Your task to perform on an android device: Search for seafood restaurants on Google Maps Image 0: 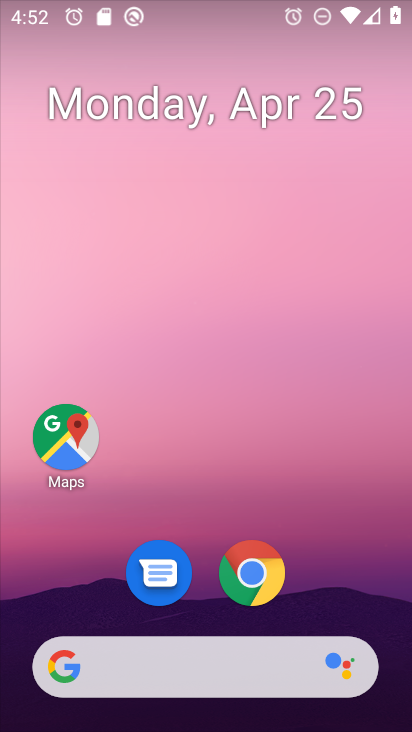
Step 0: click (62, 451)
Your task to perform on an android device: Search for seafood restaurants on Google Maps Image 1: 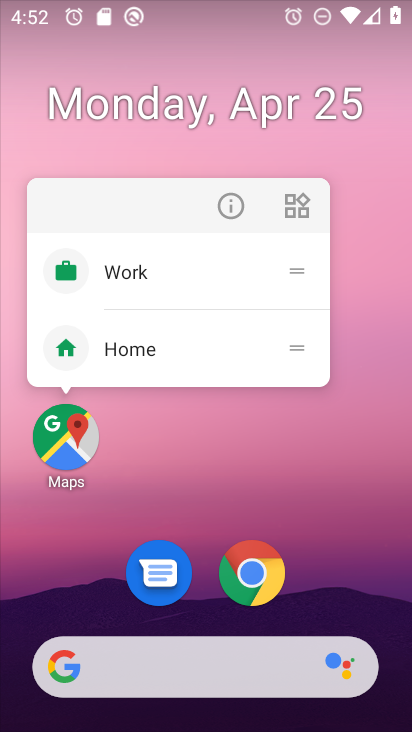
Step 1: click (62, 451)
Your task to perform on an android device: Search for seafood restaurants on Google Maps Image 2: 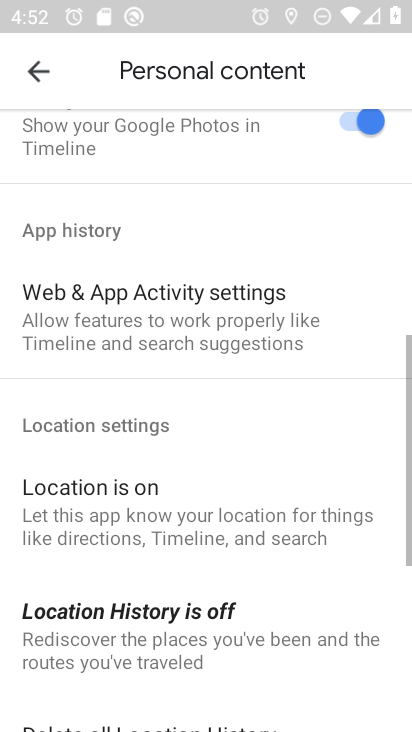
Step 2: click (95, 82)
Your task to perform on an android device: Search for seafood restaurants on Google Maps Image 3: 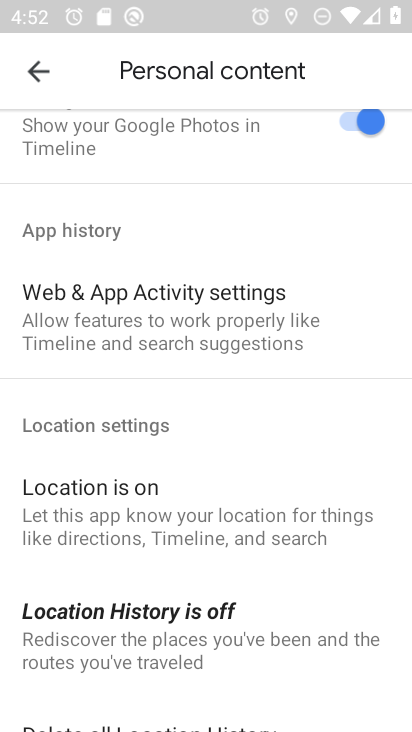
Step 3: click (60, 81)
Your task to perform on an android device: Search for seafood restaurants on Google Maps Image 4: 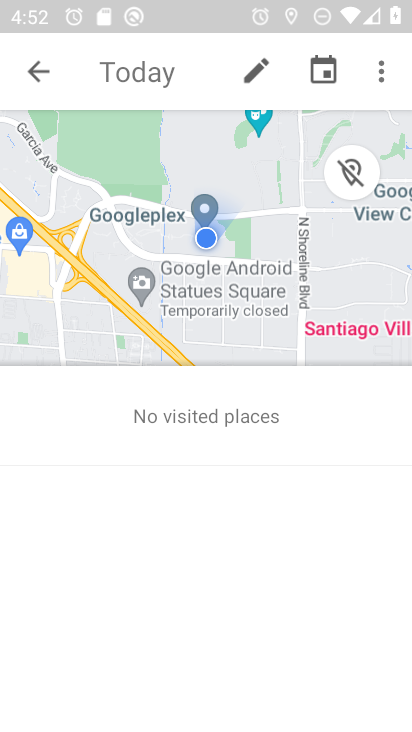
Step 4: click (50, 73)
Your task to perform on an android device: Search for seafood restaurants on Google Maps Image 5: 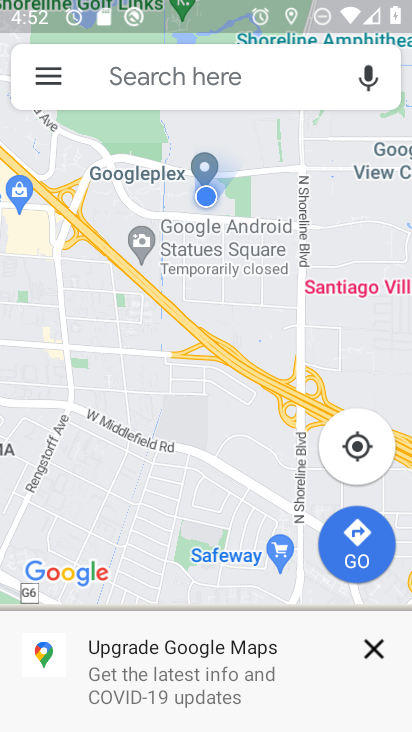
Step 5: click (151, 73)
Your task to perform on an android device: Search for seafood restaurants on Google Maps Image 6: 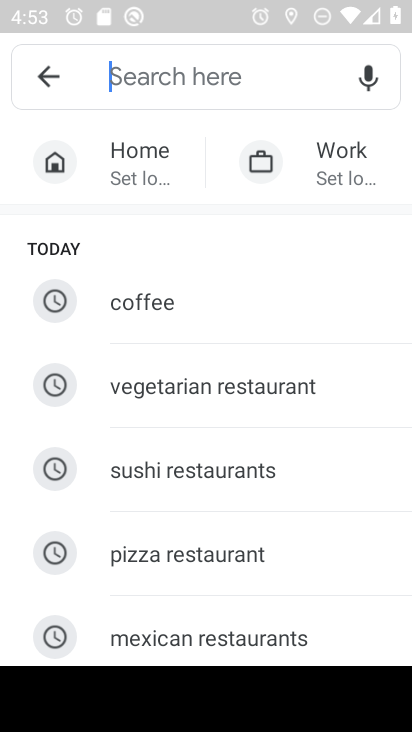
Step 6: type "seafood restaurant"
Your task to perform on an android device: Search for seafood restaurants on Google Maps Image 7: 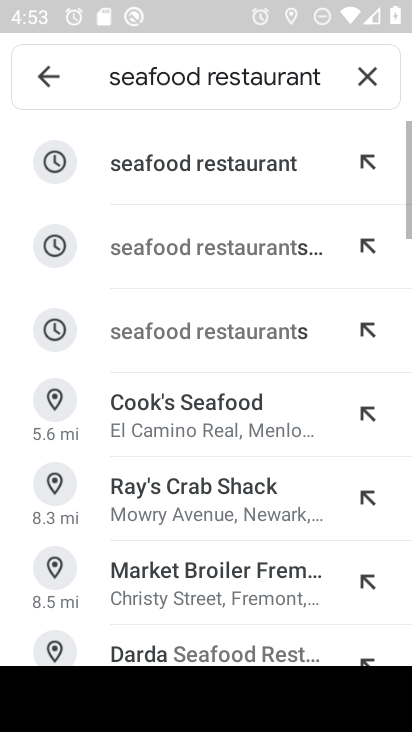
Step 7: click (184, 179)
Your task to perform on an android device: Search for seafood restaurants on Google Maps Image 8: 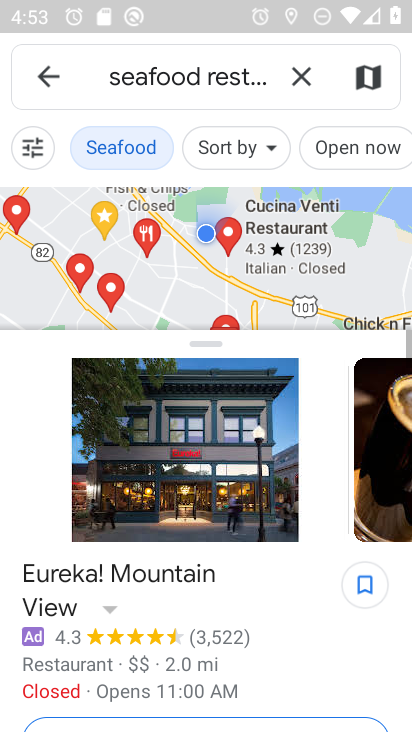
Step 8: task complete